Your task to perform on an android device: open app "PUBG MOBILE" Image 0: 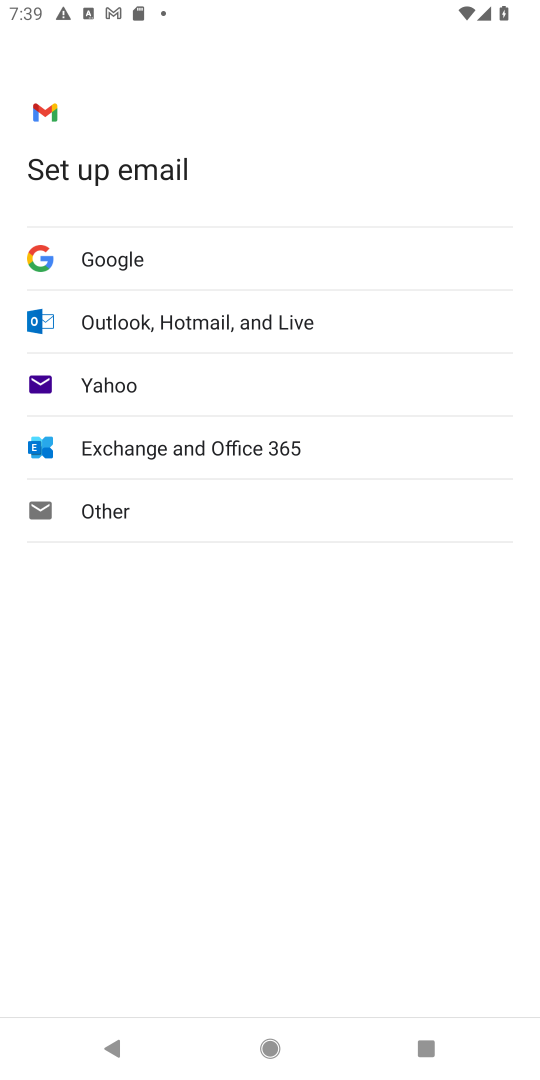
Step 0: press home button
Your task to perform on an android device: open app "PUBG MOBILE" Image 1: 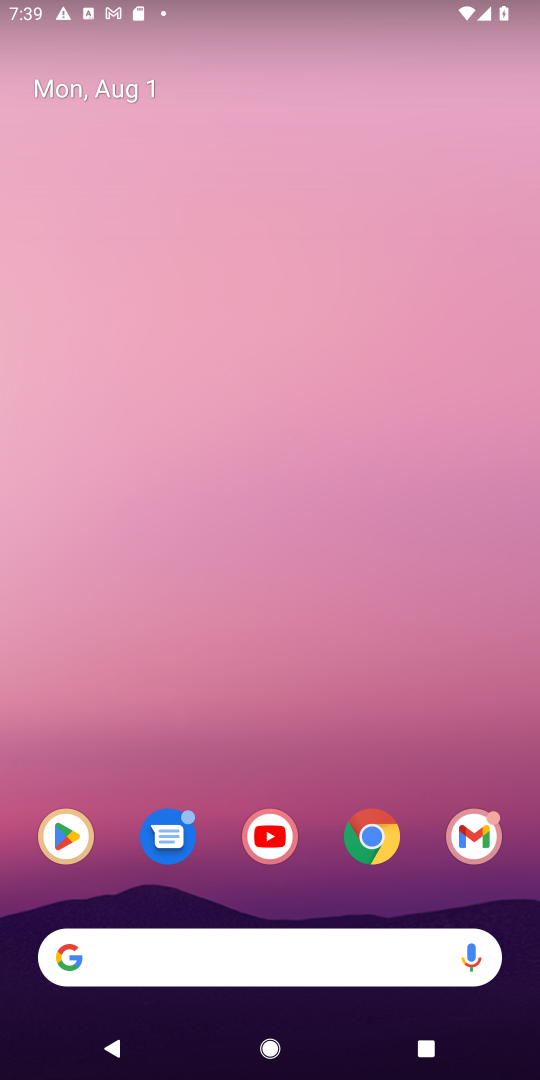
Step 1: click (69, 831)
Your task to perform on an android device: open app "PUBG MOBILE" Image 2: 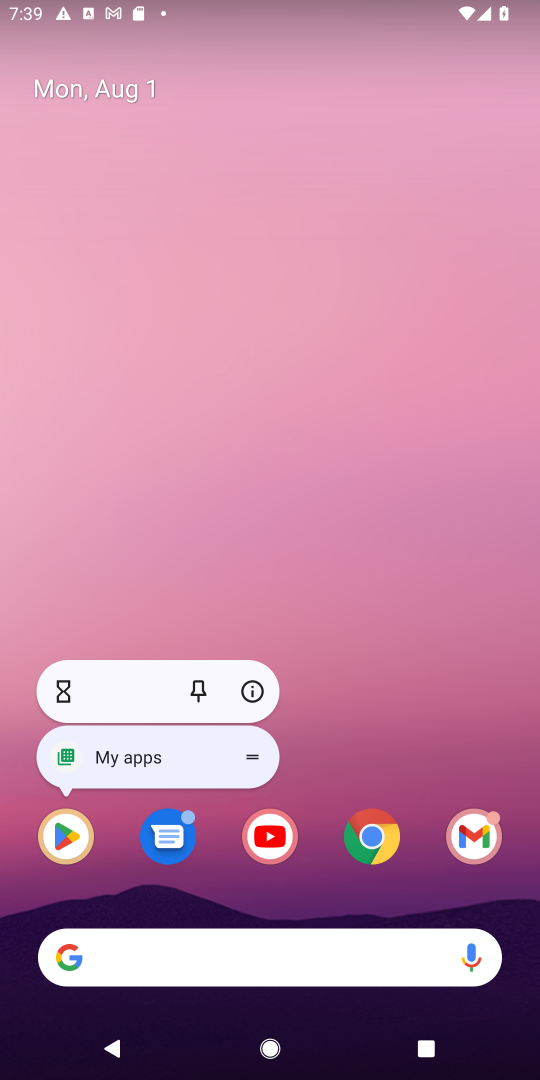
Step 2: click (62, 826)
Your task to perform on an android device: open app "PUBG MOBILE" Image 3: 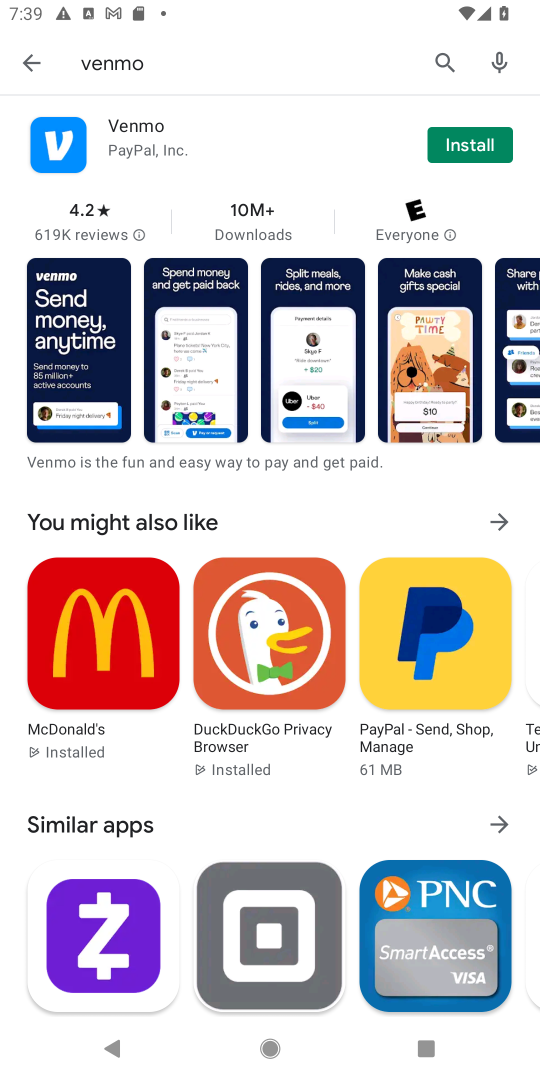
Step 3: click (444, 61)
Your task to perform on an android device: open app "PUBG MOBILE" Image 4: 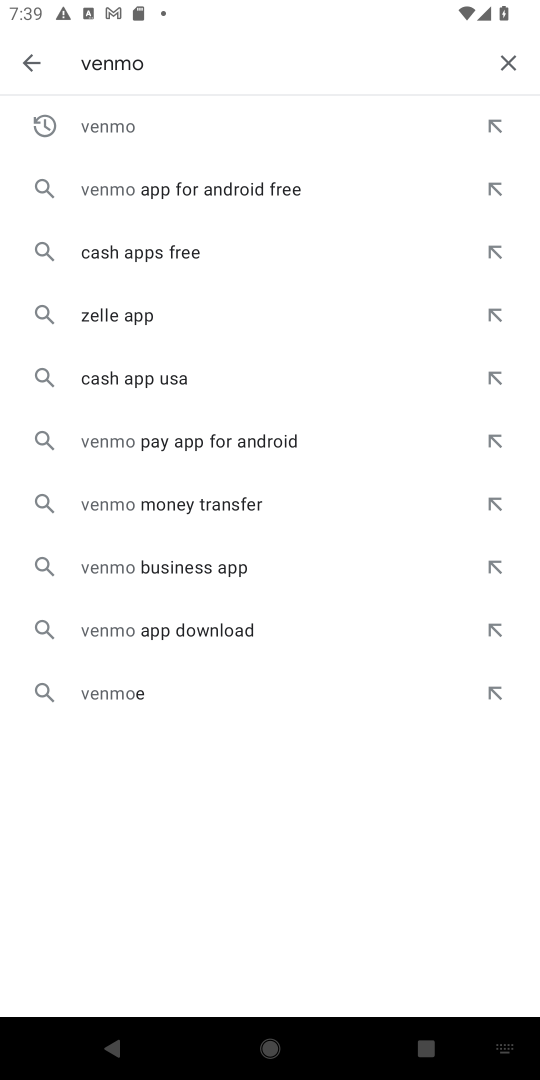
Step 4: click (501, 52)
Your task to perform on an android device: open app "PUBG MOBILE" Image 5: 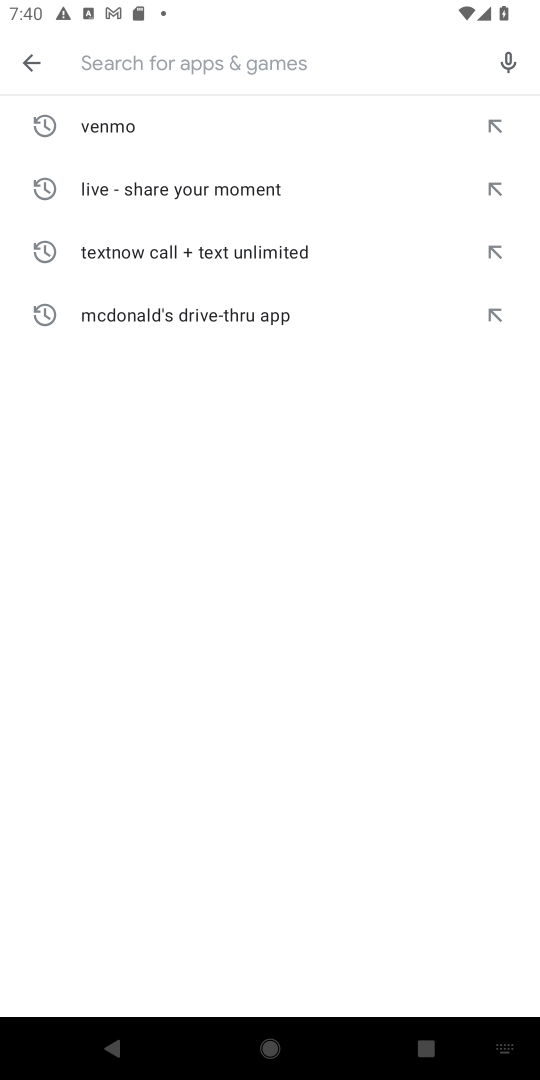
Step 5: type "PUBG MOBILE"
Your task to perform on an android device: open app "PUBG MOBILE" Image 6: 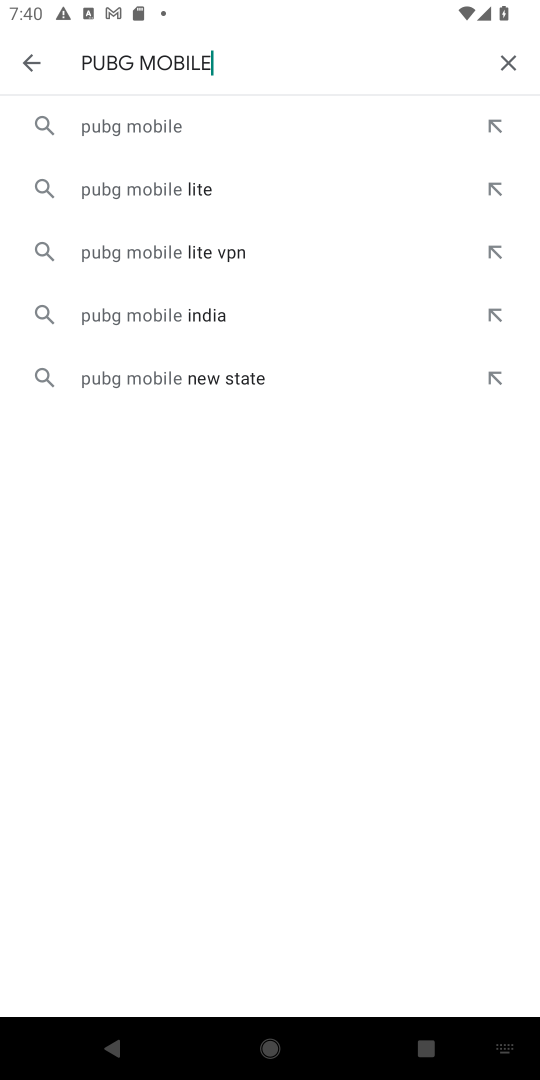
Step 6: click (164, 118)
Your task to perform on an android device: open app "PUBG MOBILE" Image 7: 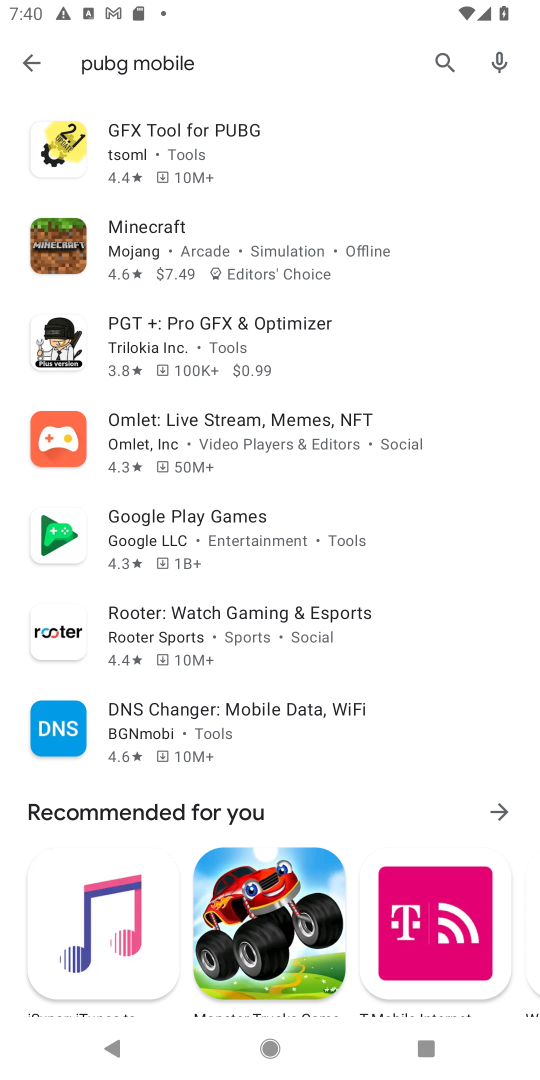
Step 7: task complete